Your task to perform on an android device: turn off javascript in the chrome app Image 0: 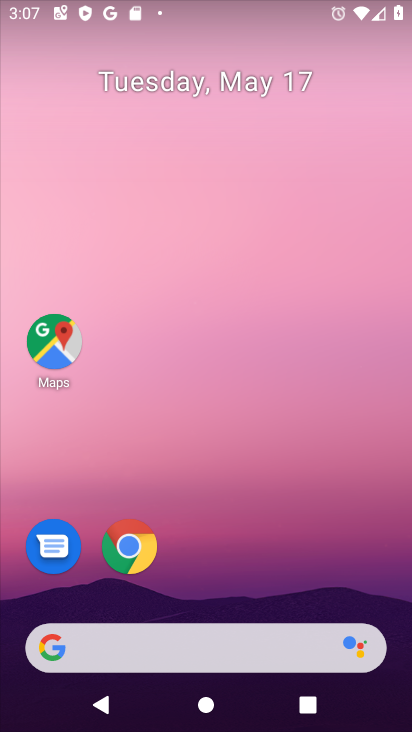
Step 0: click (131, 543)
Your task to perform on an android device: turn off javascript in the chrome app Image 1: 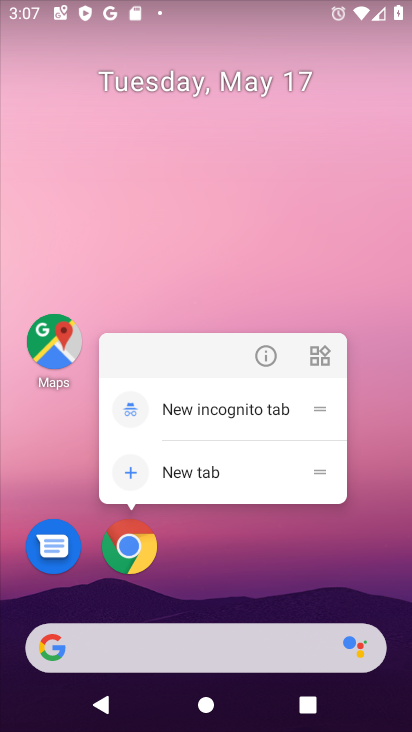
Step 1: click (124, 540)
Your task to perform on an android device: turn off javascript in the chrome app Image 2: 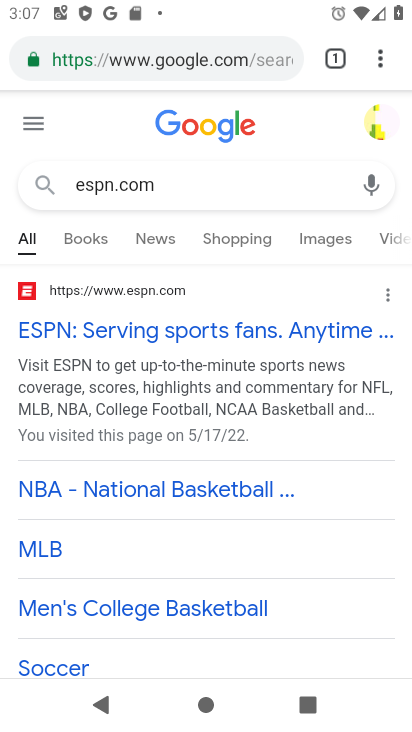
Step 2: click (381, 63)
Your task to perform on an android device: turn off javascript in the chrome app Image 3: 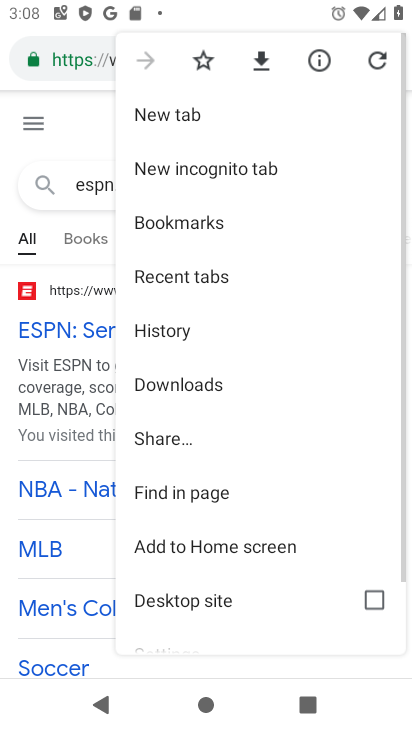
Step 3: drag from (315, 432) to (321, 270)
Your task to perform on an android device: turn off javascript in the chrome app Image 4: 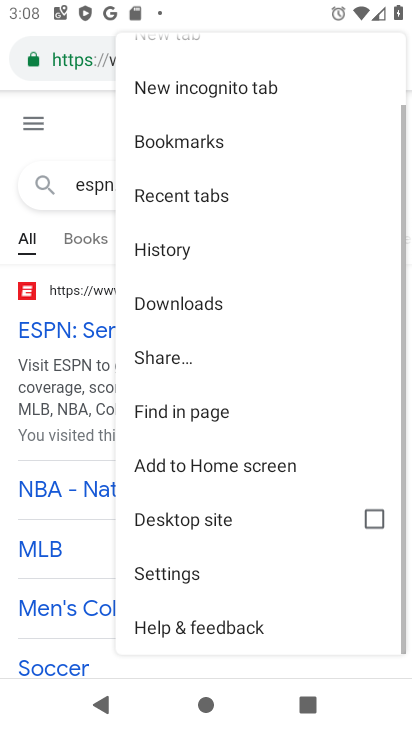
Step 4: drag from (233, 620) to (237, 382)
Your task to perform on an android device: turn off javascript in the chrome app Image 5: 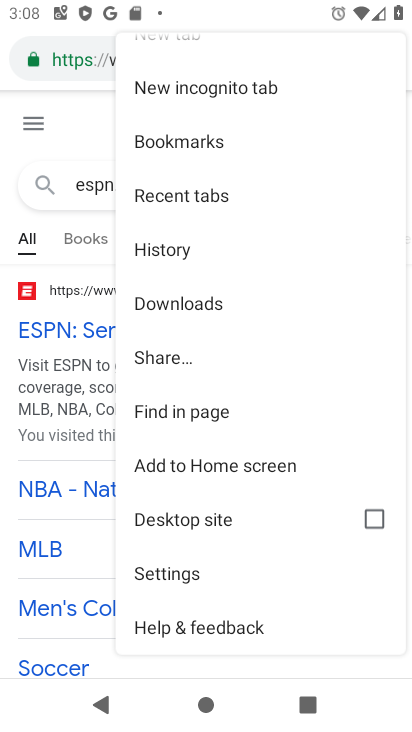
Step 5: click (174, 580)
Your task to perform on an android device: turn off javascript in the chrome app Image 6: 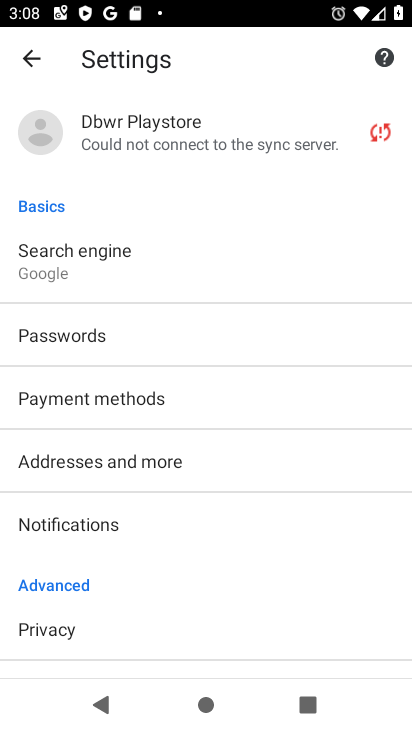
Step 6: drag from (201, 565) to (213, 413)
Your task to perform on an android device: turn off javascript in the chrome app Image 7: 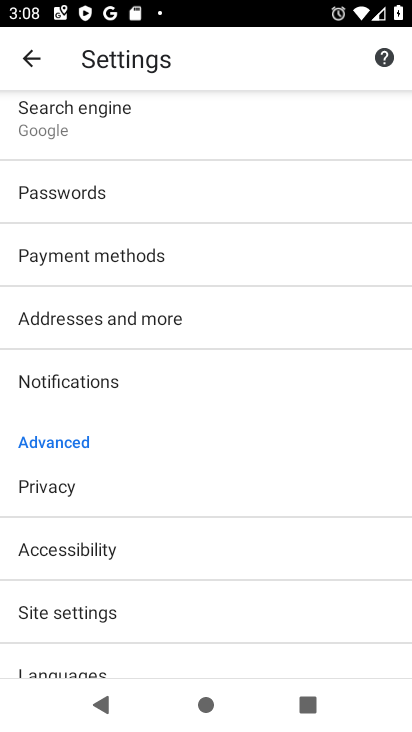
Step 7: click (60, 606)
Your task to perform on an android device: turn off javascript in the chrome app Image 8: 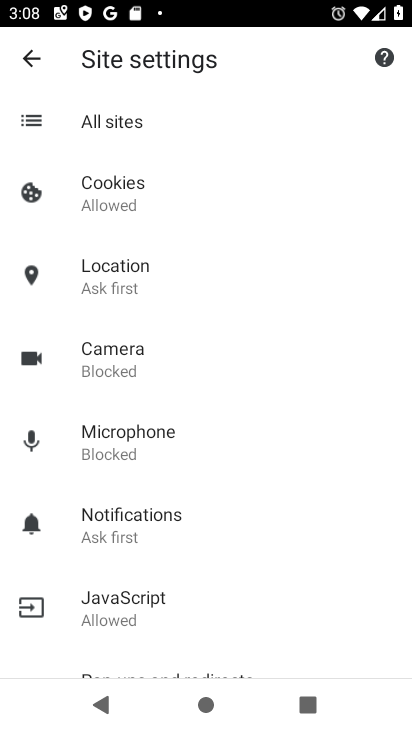
Step 8: click (128, 610)
Your task to perform on an android device: turn off javascript in the chrome app Image 9: 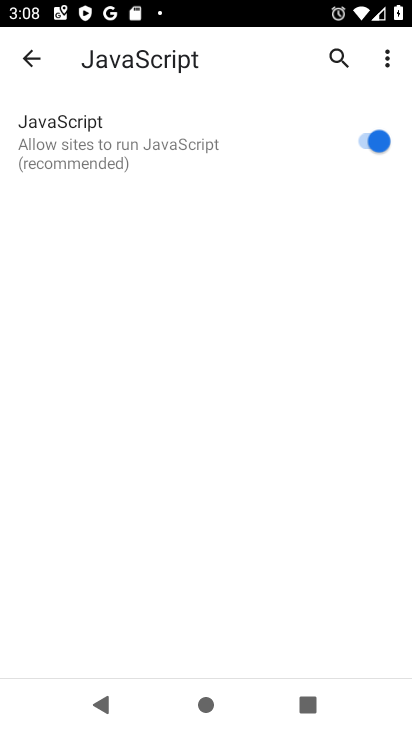
Step 9: click (363, 140)
Your task to perform on an android device: turn off javascript in the chrome app Image 10: 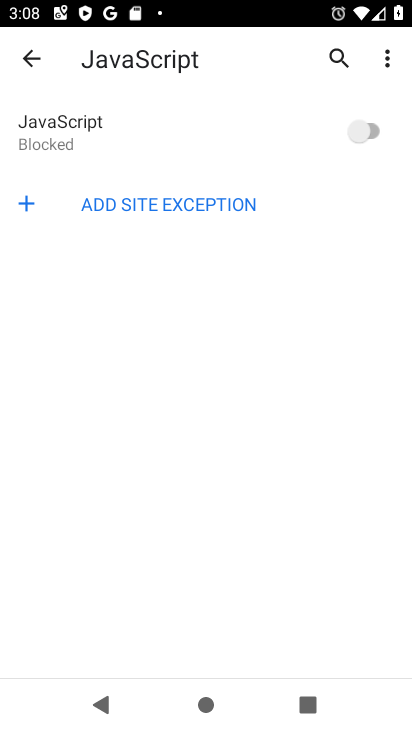
Step 10: task complete